Your task to perform on an android device: Open calendar and show me the second week of next month Image 0: 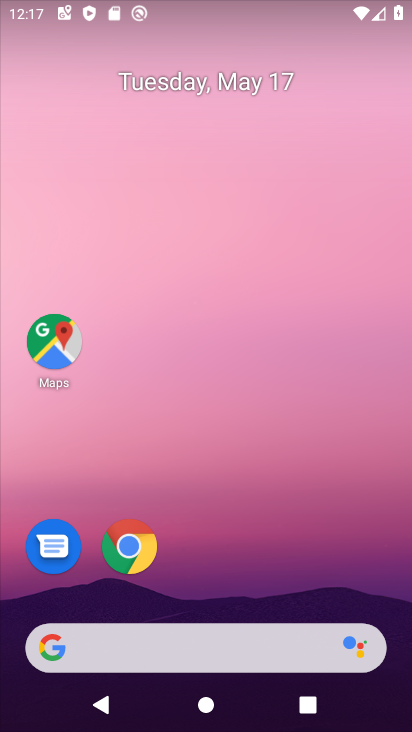
Step 0: drag from (407, 620) to (351, 108)
Your task to perform on an android device: Open calendar and show me the second week of next month Image 1: 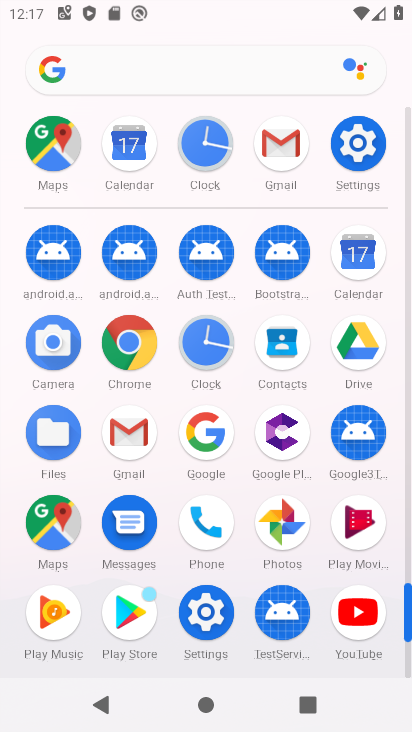
Step 1: click (357, 256)
Your task to perform on an android device: Open calendar and show me the second week of next month Image 2: 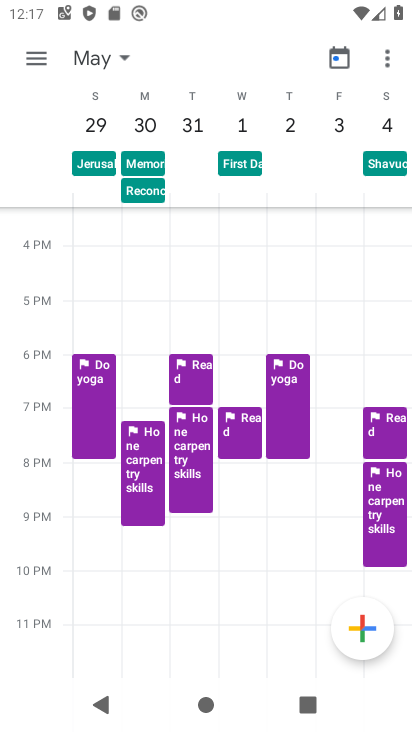
Step 2: click (37, 54)
Your task to perform on an android device: Open calendar and show me the second week of next month Image 3: 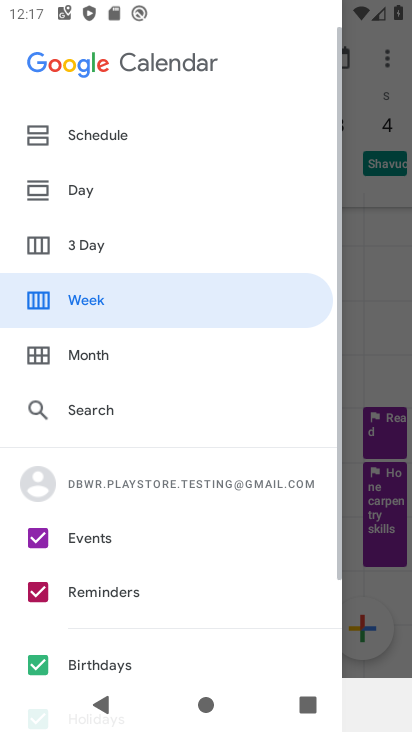
Step 3: click (103, 313)
Your task to perform on an android device: Open calendar and show me the second week of next month Image 4: 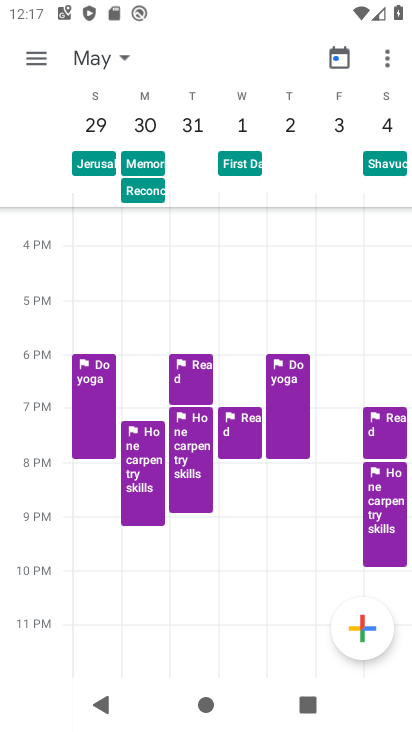
Step 4: click (119, 58)
Your task to perform on an android device: Open calendar and show me the second week of next month Image 5: 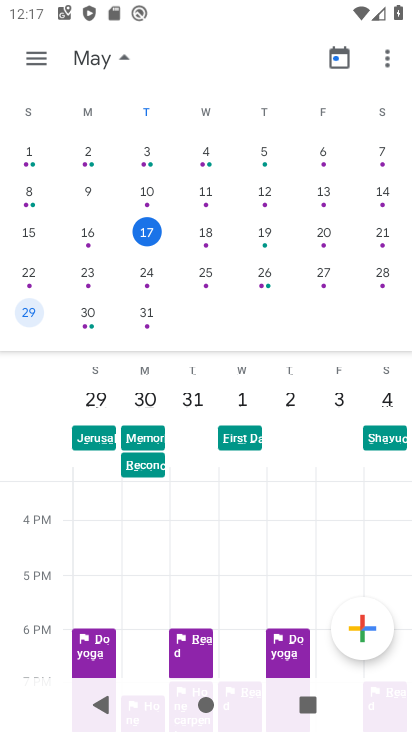
Step 5: drag from (377, 259) to (12, 164)
Your task to perform on an android device: Open calendar and show me the second week of next month Image 6: 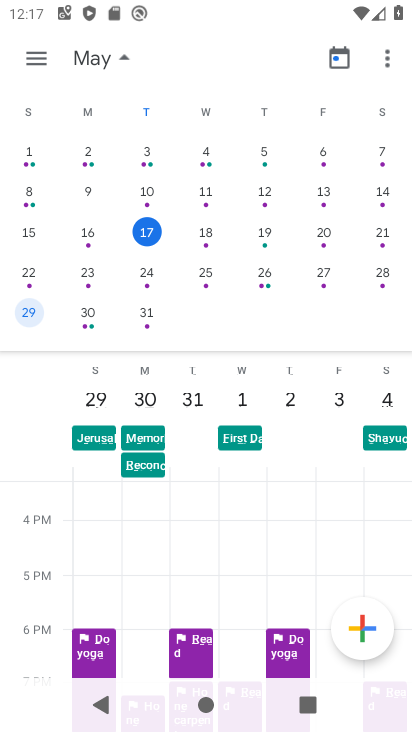
Step 6: drag from (390, 233) to (11, 141)
Your task to perform on an android device: Open calendar and show me the second week of next month Image 7: 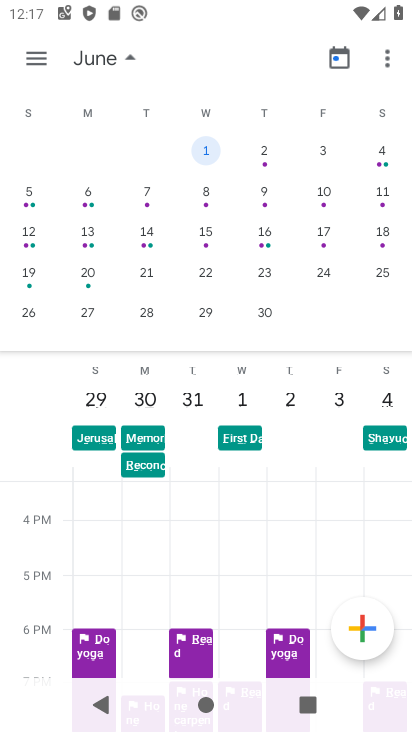
Step 7: click (19, 199)
Your task to perform on an android device: Open calendar and show me the second week of next month Image 8: 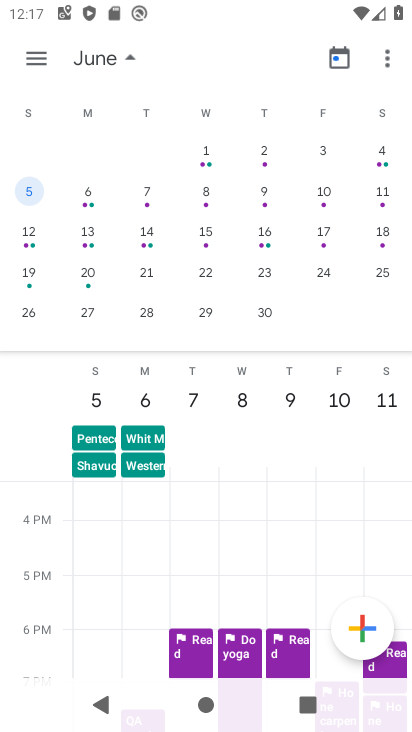
Step 8: task complete